Your task to perform on an android device: Open calendar and show me the first week of next month Image 0: 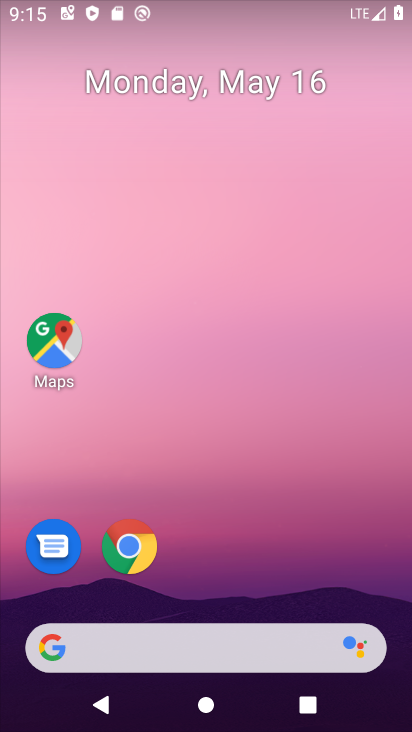
Step 0: drag from (264, 671) to (186, 218)
Your task to perform on an android device: Open calendar and show me the first week of next month Image 1: 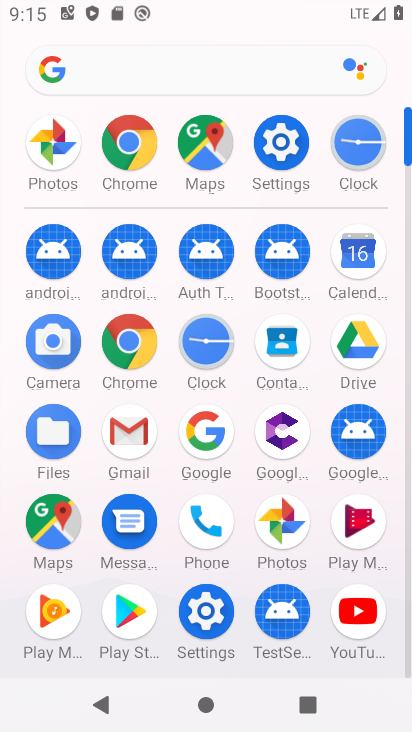
Step 1: click (347, 258)
Your task to perform on an android device: Open calendar and show me the first week of next month Image 2: 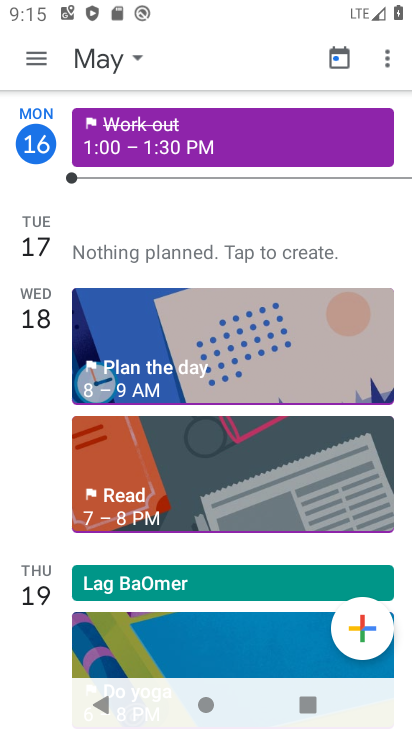
Step 2: click (28, 58)
Your task to perform on an android device: Open calendar and show me the first week of next month Image 3: 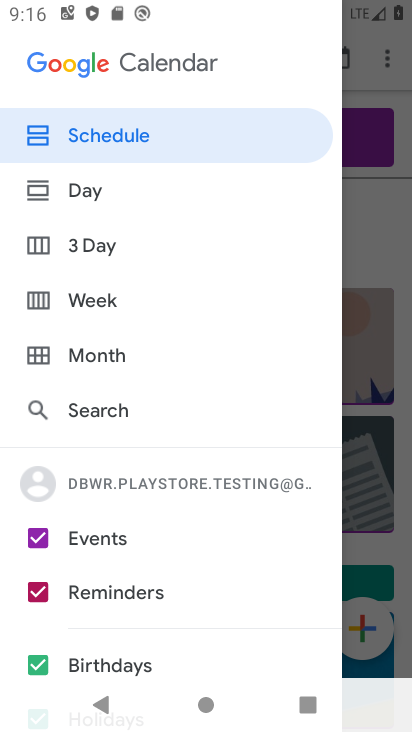
Step 3: click (118, 352)
Your task to perform on an android device: Open calendar and show me the first week of next month Image 4: 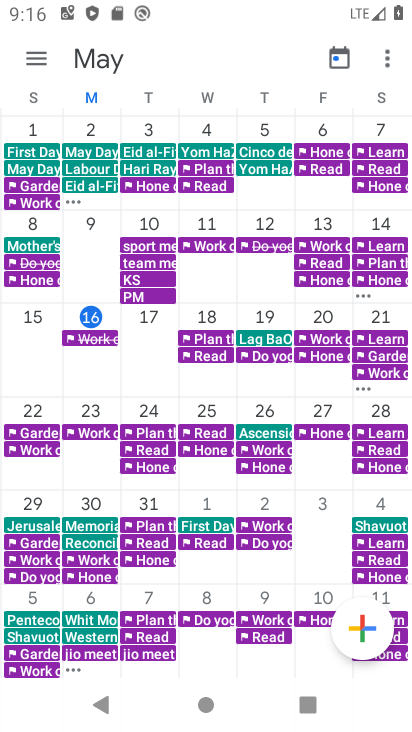
Step 4: drag from (353, 439) to (17, 435)
Your task to perform on an android device: Open calendar and show me the first week of next month Image 5: 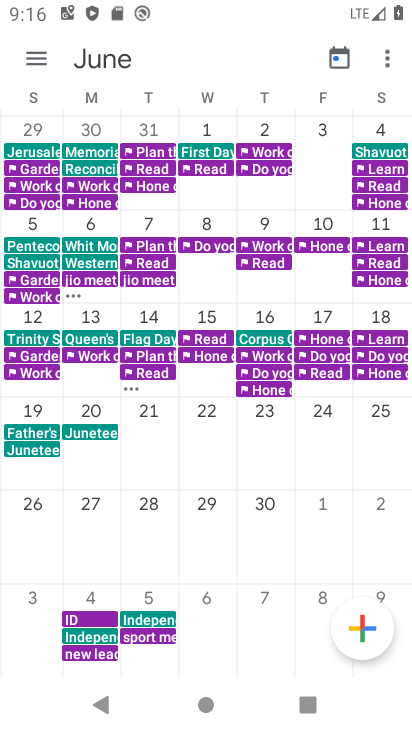
Step 5: click (202, 150)
Your task to perform on an android device: Open calendar and show me the first week of next month Image 6: 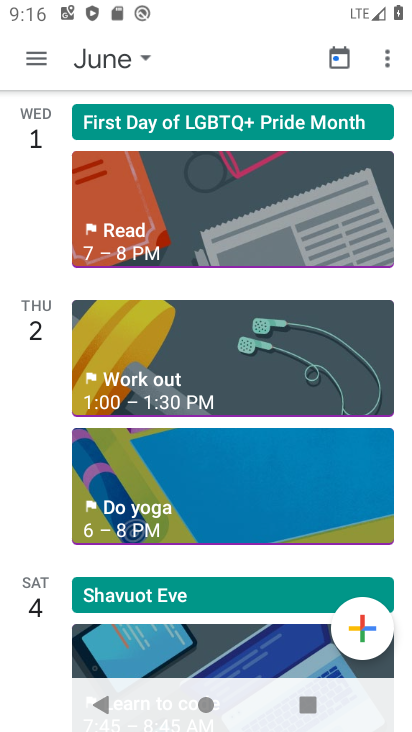
Step 6: task complete